Your task to perform on an android device: Go to eBay Image 0: 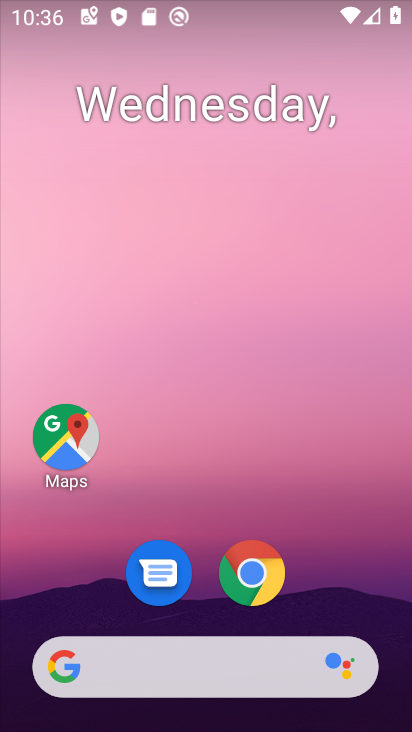
Step 0: drag from (207, 449) to (260, 0)
Your task to perform on an android device: Go to eBay Image 1: 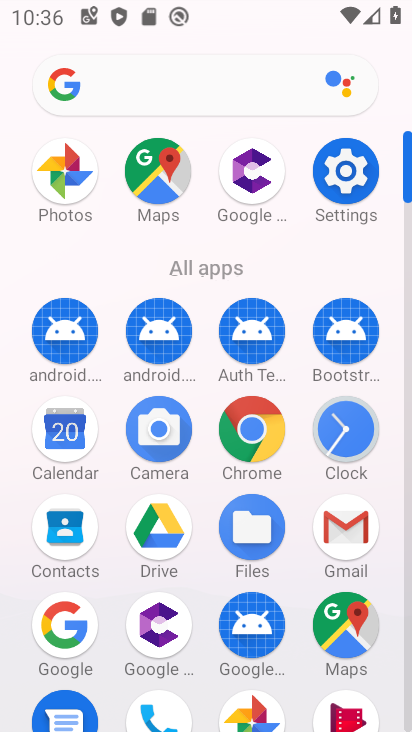
Step 1: click (59, 624)
Your task to perform on an android device: Go to eBay Image 2: 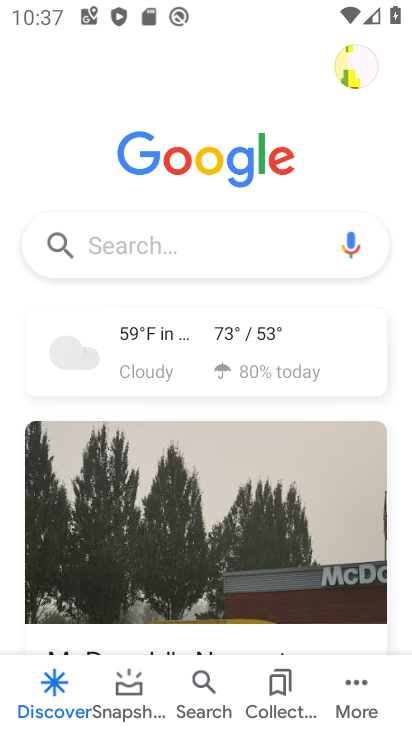
Step 2: click (245, 251)
Your task to perform on an android device: Go to eBay Image 3: 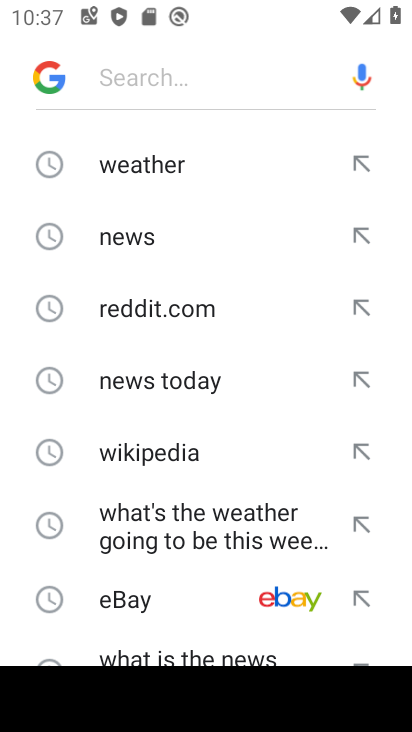
Step 3: click (135, 598)
Your task to perform on an android device: Go to eBay Image 4: 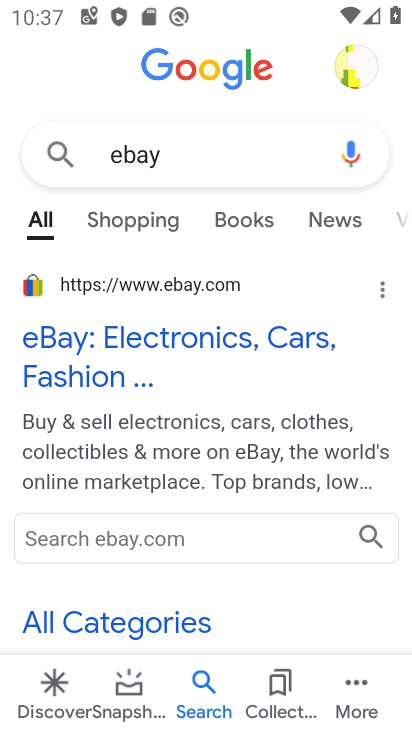
Step 4: task complete